Your task to perform on an android device: open app "Cash App" (install if not already installed) Image 0: 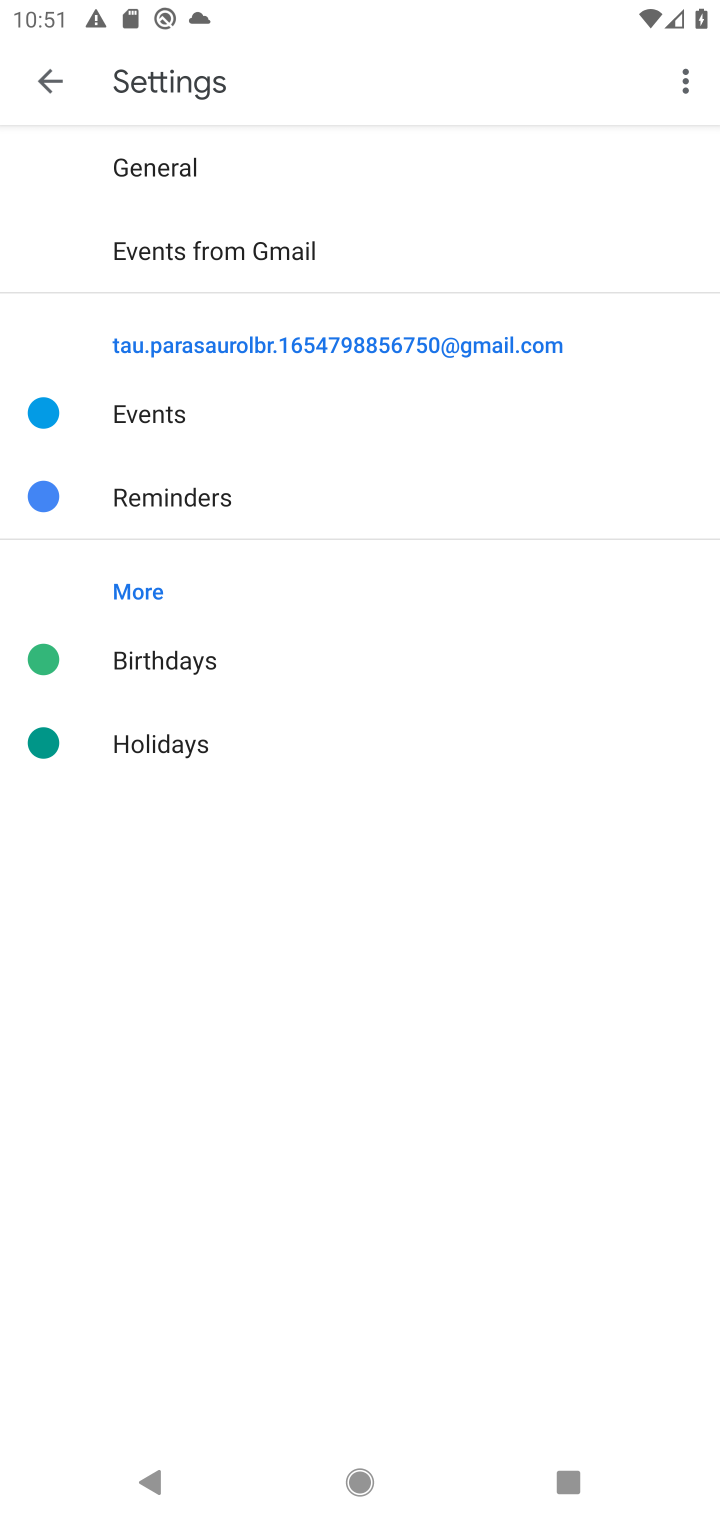
Step 0: press home button
Your task to perform on an android device: open app "Cash App" (install if not already installed) Image 1: 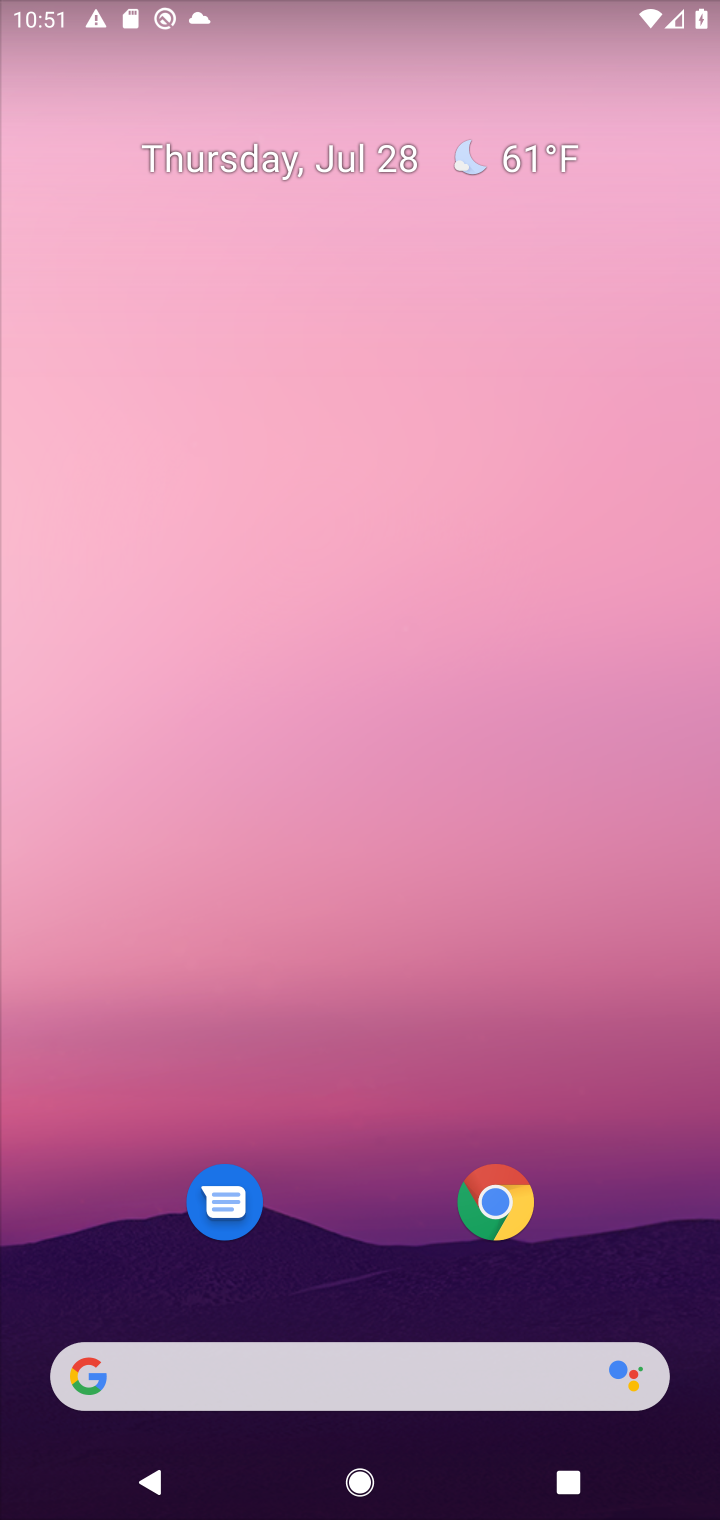
Step 1: click (320, 1357)
Your task to perform on an android device: open app "Cash App" (install if not already installed) Image 2: 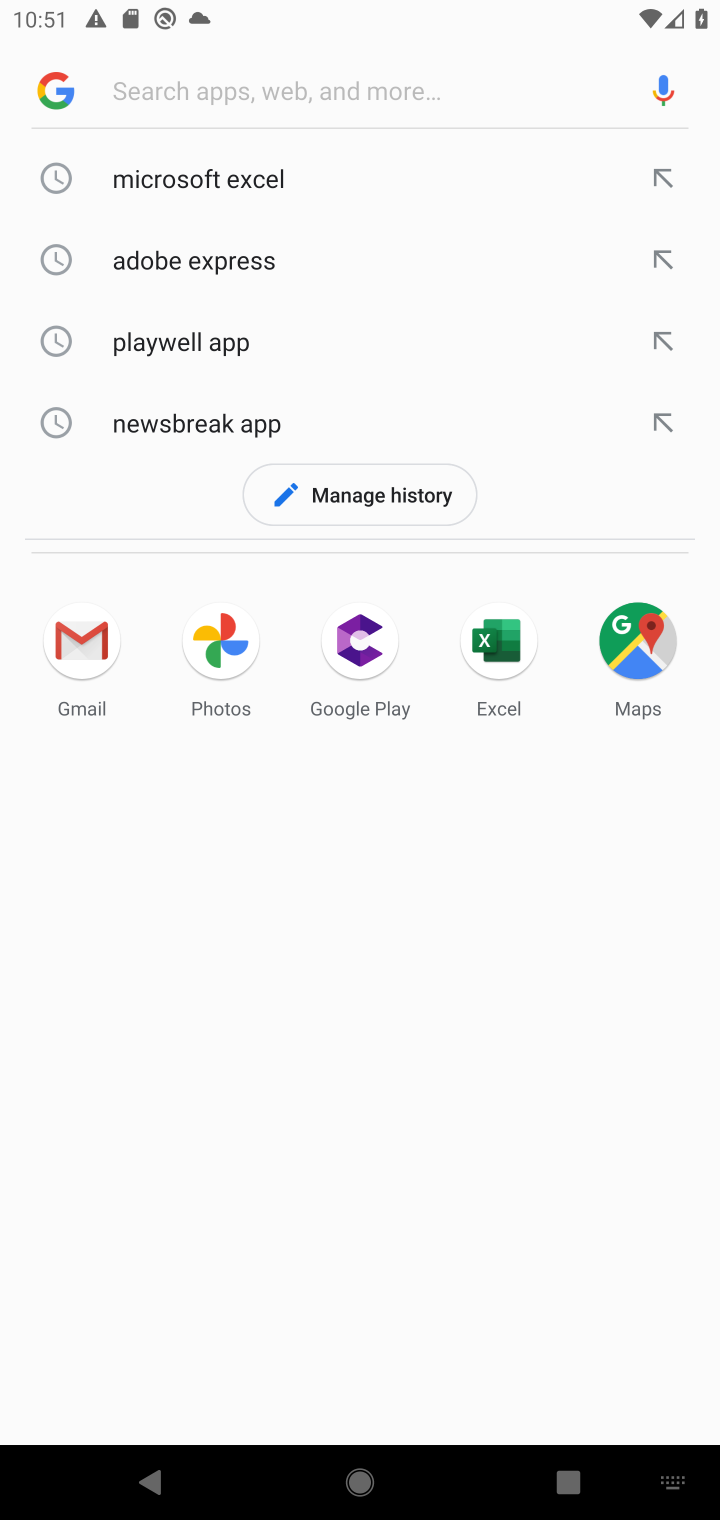
Step 2: type "cash app"
Your task to perform on an android device: open app "Cash App" (install if not already installed) Image 3: 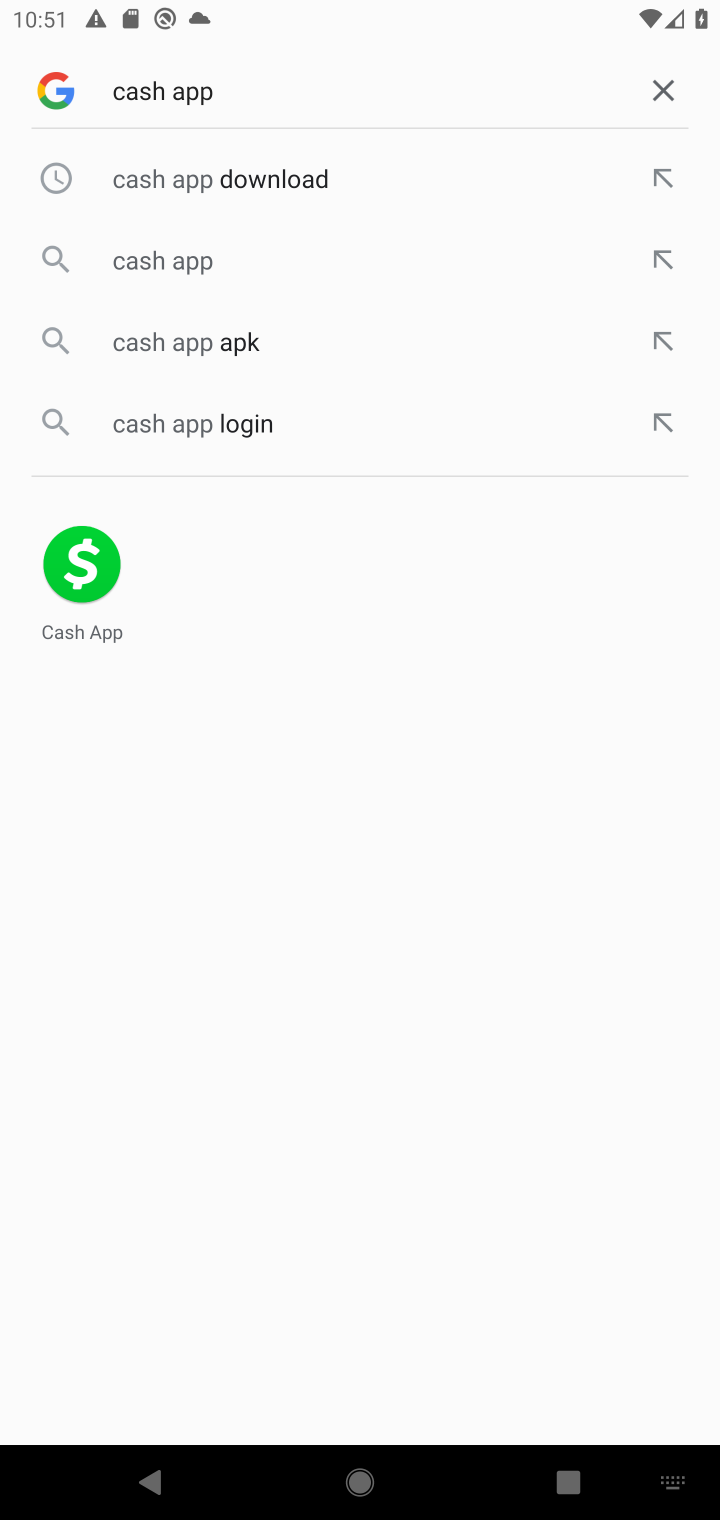
Step 3: click (277, 198)
Your task to perform on an android device: open app "Cash App" (install if not already installed) Image 4: 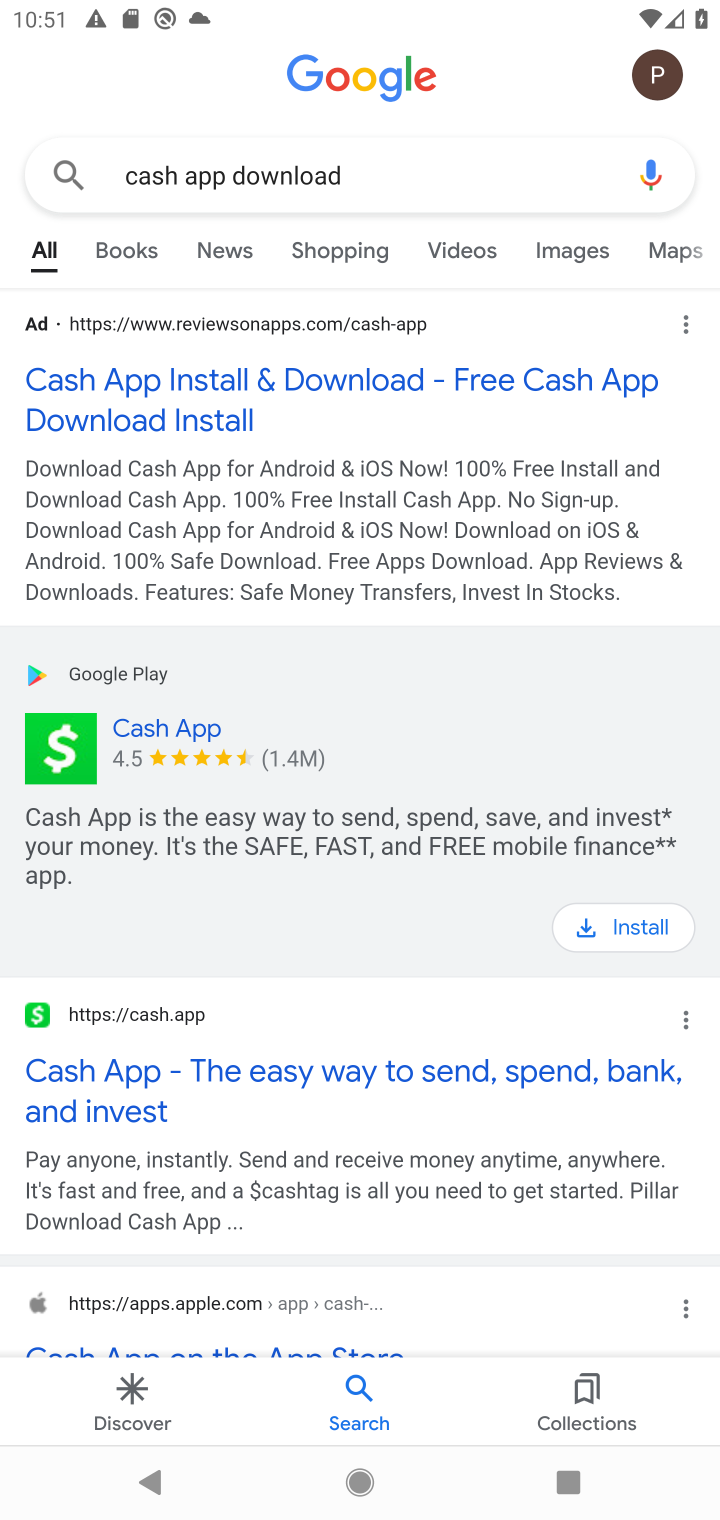
Step 4: click (618, 913)
Your task to perform on an android device: open app "Cash App" (install if not already installed) Image 5: 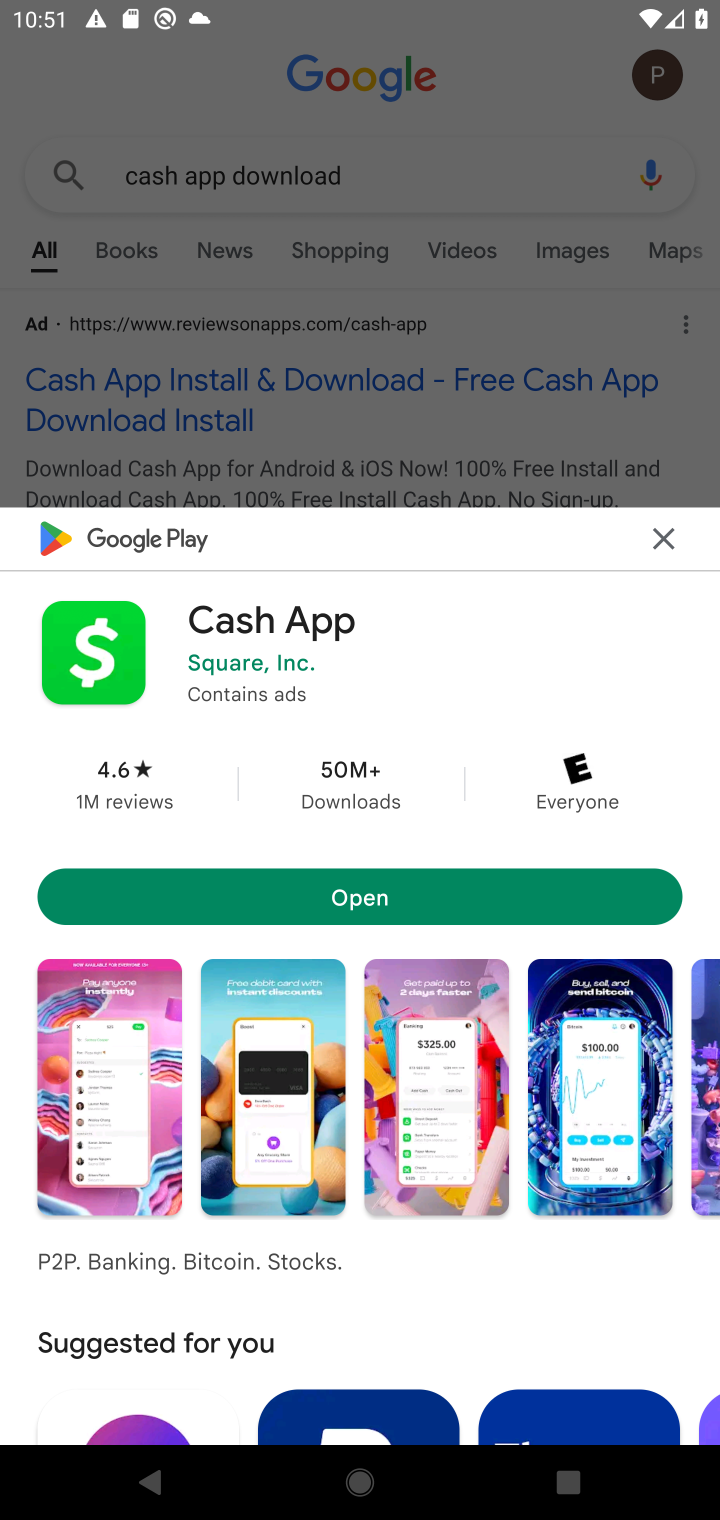
Step 5: click (444, 917)
Your task to perform on an android device: open app "Cash App" (install if not already installed) Image 6: 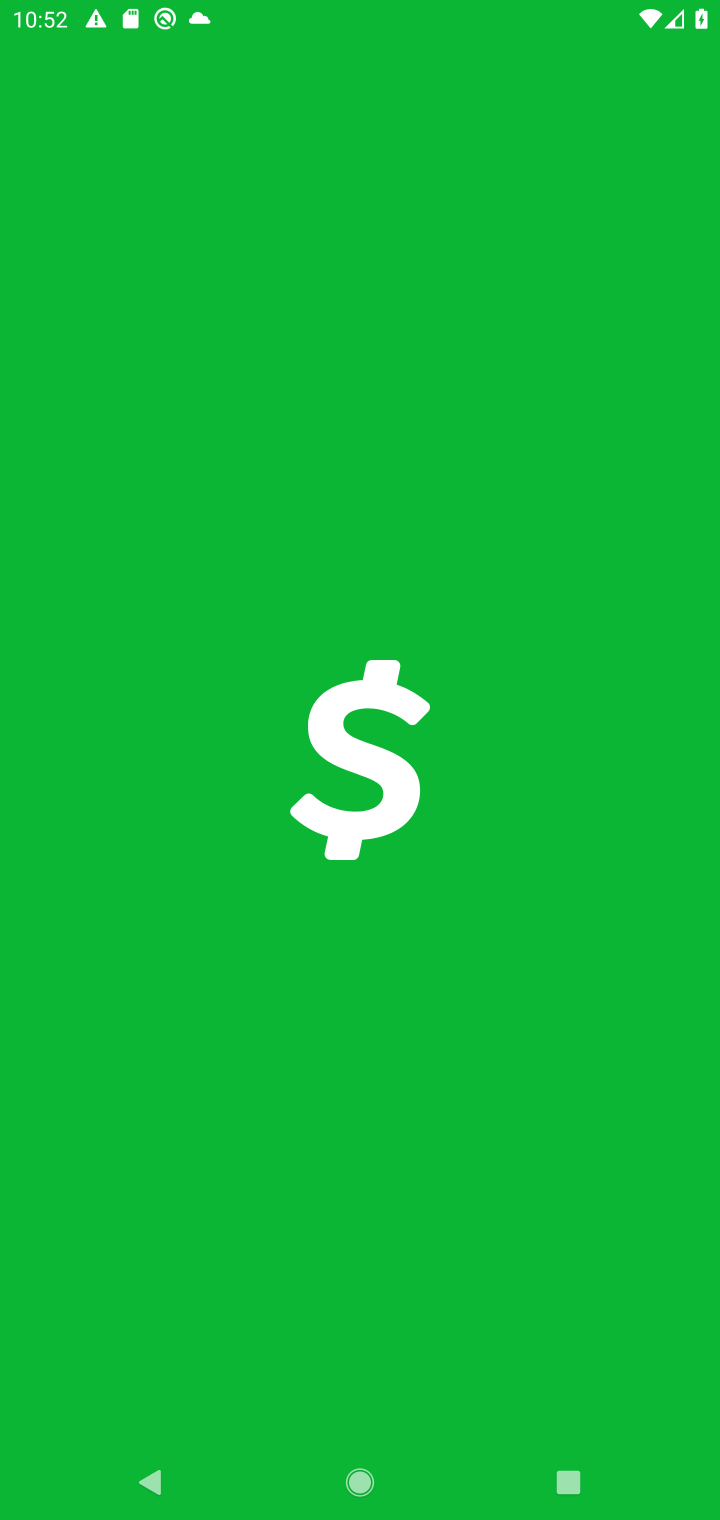
Step 6: task complete